Your task to perform on an android device: toggle pop-ups in chrome Image 0: 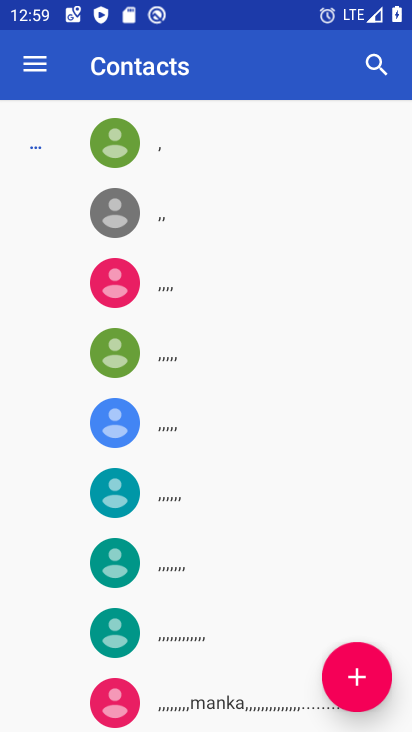
Step 0: press home button
Your task to perform on an android device: toggle pop-ups in chrome Image 1: 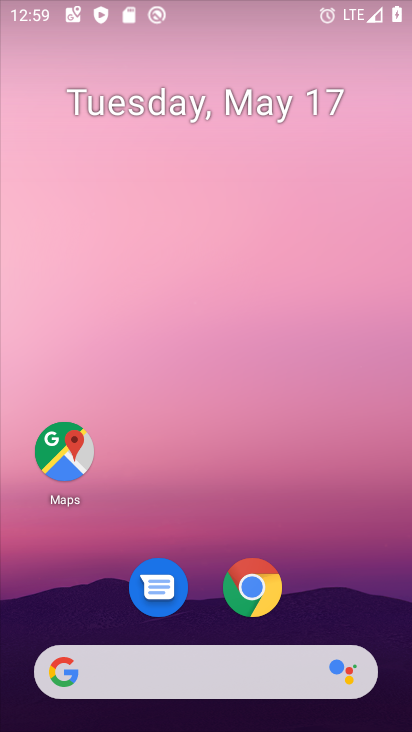
Step 1: drag from (389, 661) to (360, 224)
Your task to perform on an android device: toggle pop-ups in chrome Image 2: 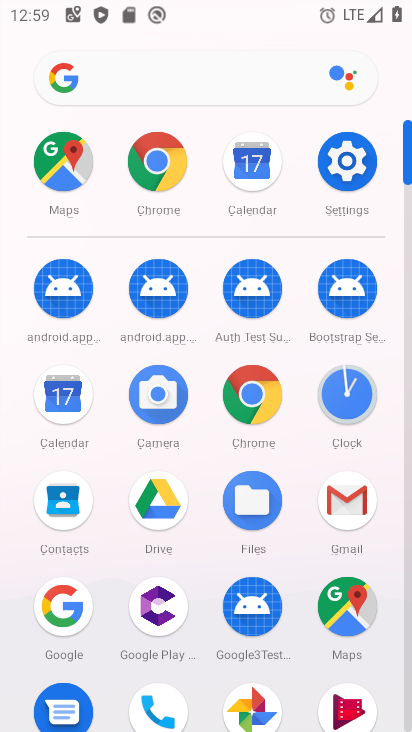
Step 2: click (159, 153)
Your task to perform on an android device: toggle pop-ups in chrome Image 3: 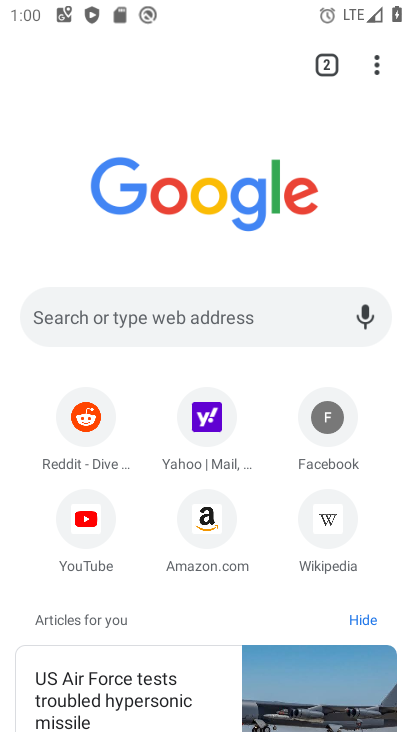
Step 3: click (376, 59)
Your task to perform on an android device: toggle pop-ups in chrome Image 4: 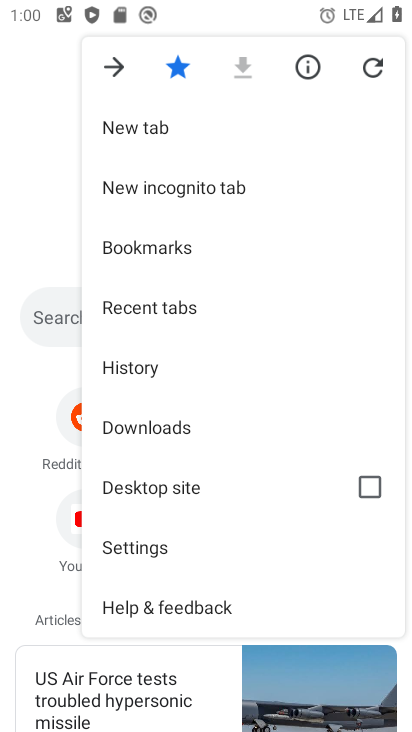
Step 4: click (196, 549)
Your task to perform on an android device: toggle pop-ups in chrome Image 5: 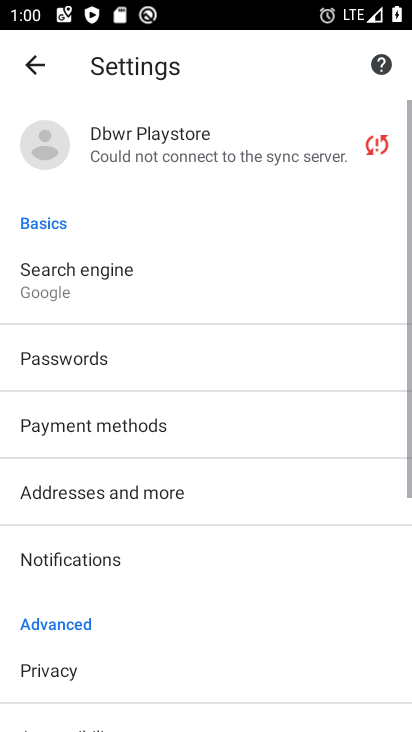
Step 5: drag from (114, 637) to (282, 154)
Your task to perform on an android device: toggle pop-ups in chrome Image 6: 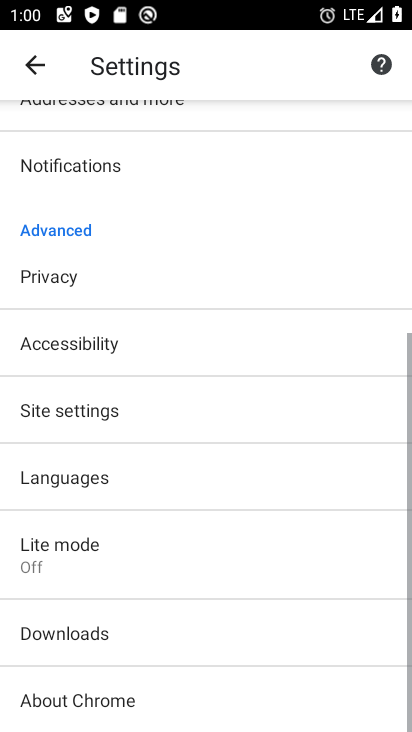
Step 6: click (104, 399)
Your task to perform on an android device: toggle pop-ups in chrome Image 7: 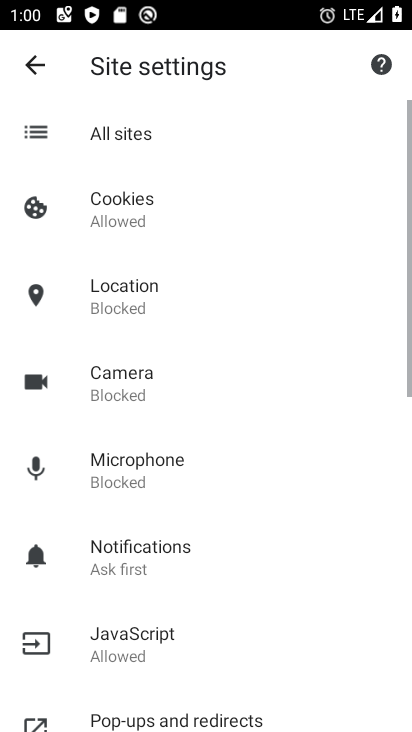
Step 7: drag from (152, 672) to (215, 229)
Your task to perform on an android device: toggle pop-ups in chrome Image 8: 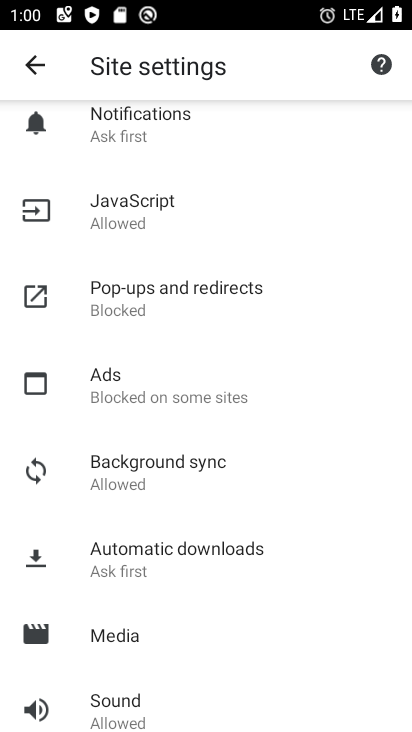
Step 8: click (173, 289)
Your task to perform on an android device: toggle pop-ups in chrome Image 9: 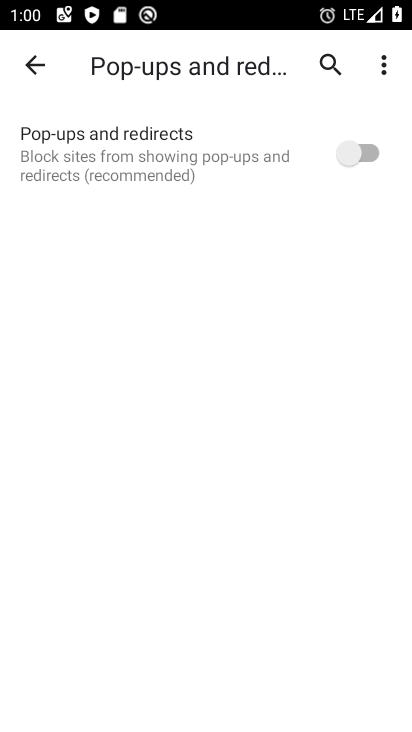
Step 9: click (313, 170)
Your task to perform on an android device: toggle pop-ups in chrome Image 10: 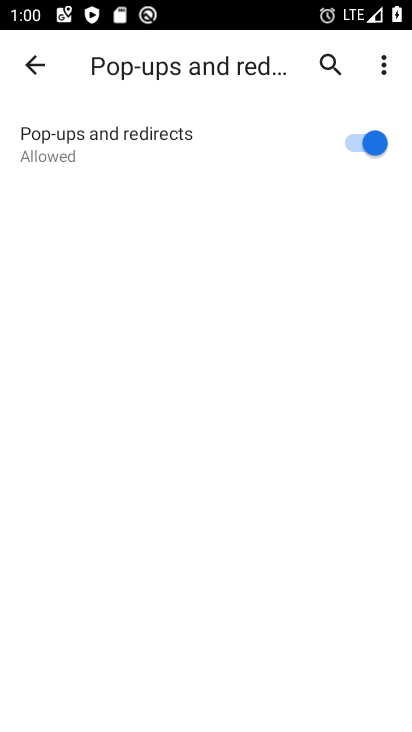
Step 10: task complete